Your task to perform on an android device: set an alarm Image 0: 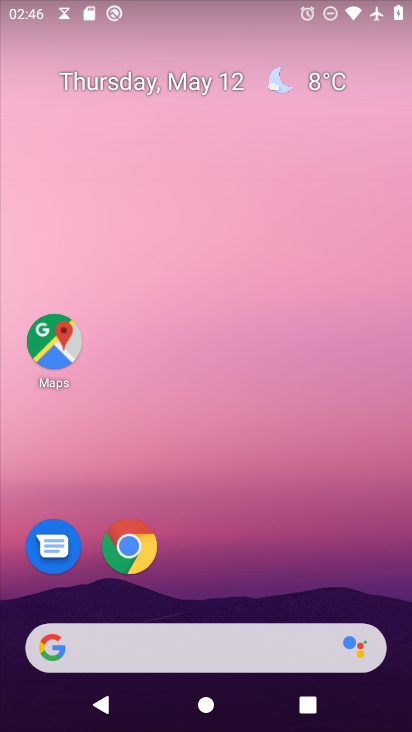
Step 0: drag from (174, 649) to (276, 152)
Your task to perform on an android device: set an alarm Image 1: 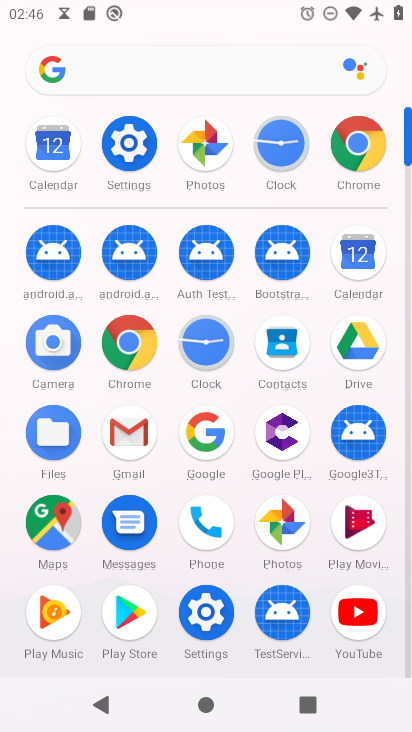
Step 1: click (279, 162)
Your task to perform on an android device: set an alarm Image 2: 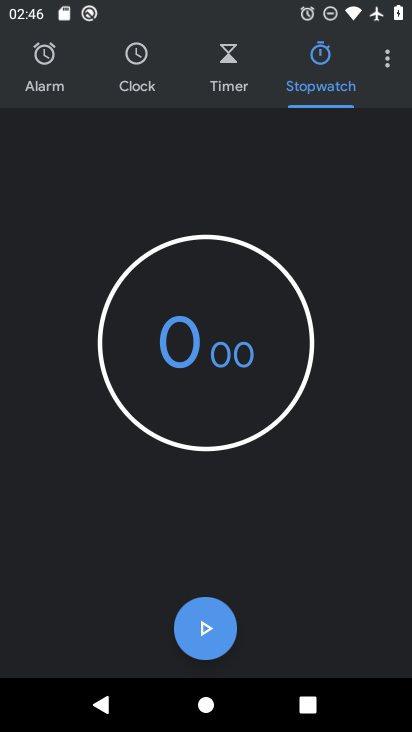
Step 2: click (46, 92)
Your task to perform on an android device: set an alarm Image 3: 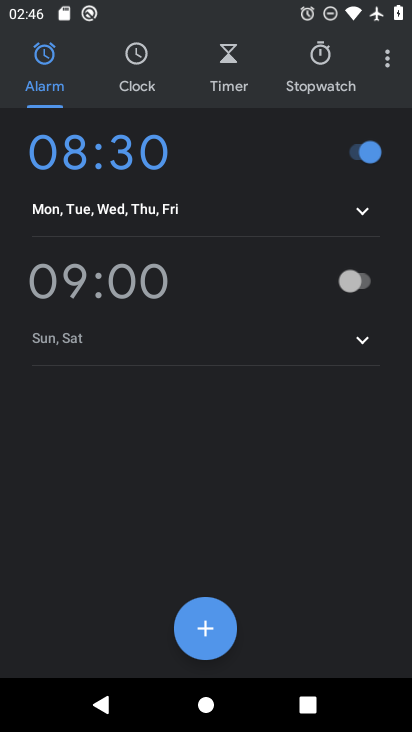
Step 3: click (119, 281)
Your task to perform on an android device: set an alarm Image 4: 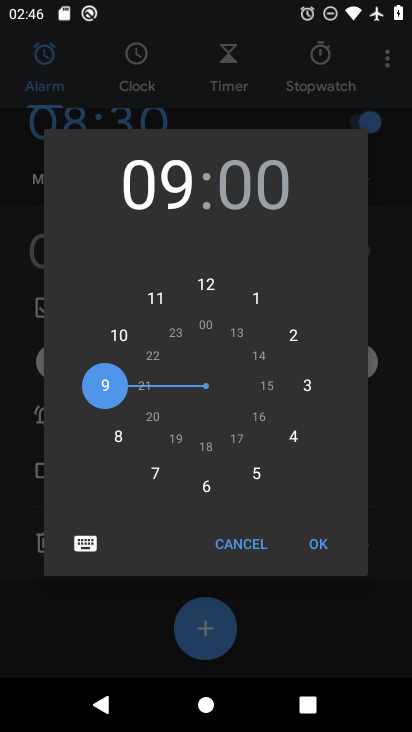
Step 4: click (120, 331)
Your task to perform on an android device: set an alarm Image 5: 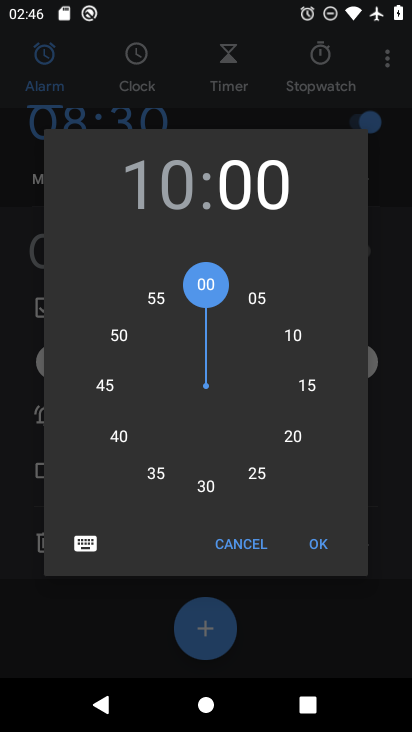
Step 5: click (318, 542)
Your task to perform on an android device: set an alarm Image 6: 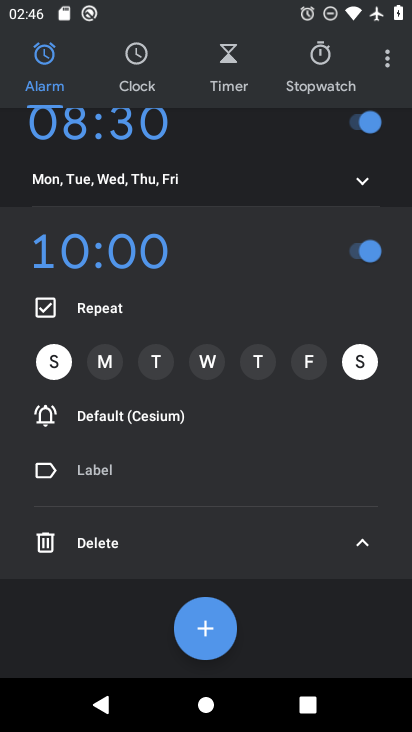
Step 6: task complete